Your task to perform on an android device: delete browsing data in the chrome app Image 0: 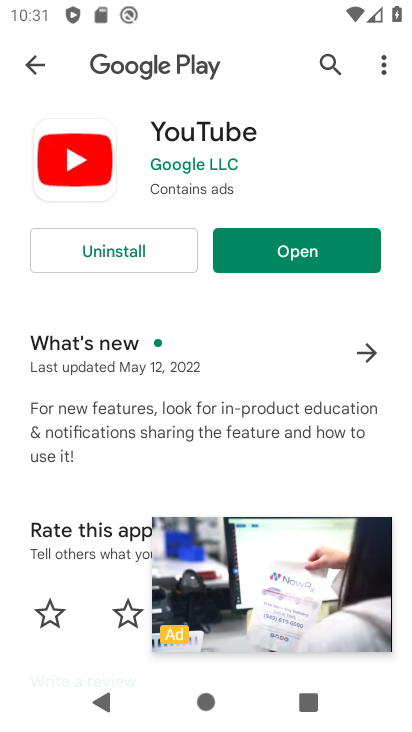
Step 0: press home button
Your task to perform on an android device: delete browsing data in the chrome app Image 1: 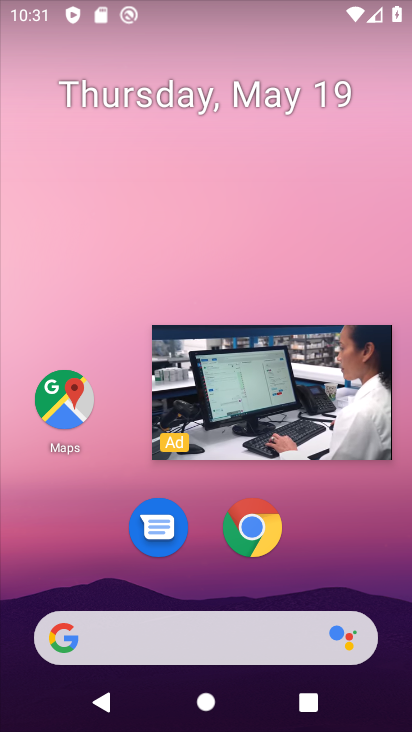
Step 1: click (256, 519)
Your task to perform on an android device: delete browsing data in the chrome app Image 2: 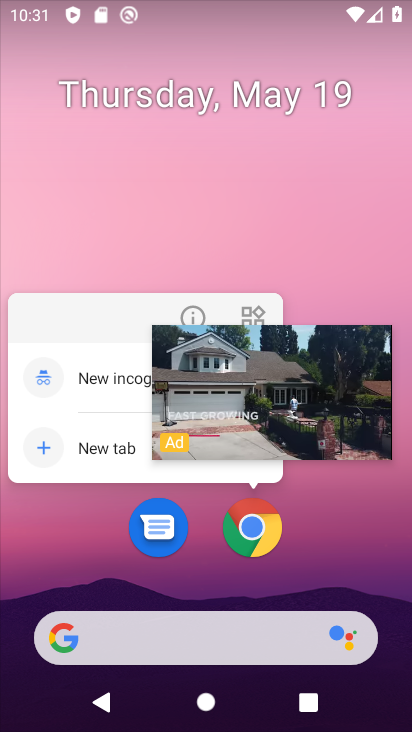
Step 2: click (254, 519)
Your task to perform on an android device: delete browsing data in the chrome app Image 3: 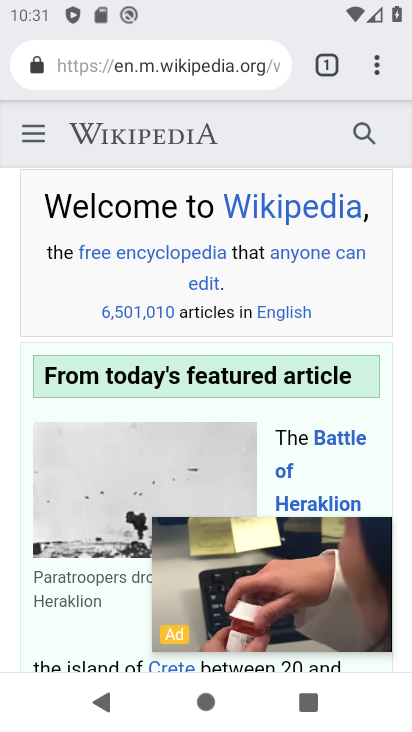
Step 3: click (373, 75)
Your task to perform on an android device: delete browsing data in the chrome app Image 4: 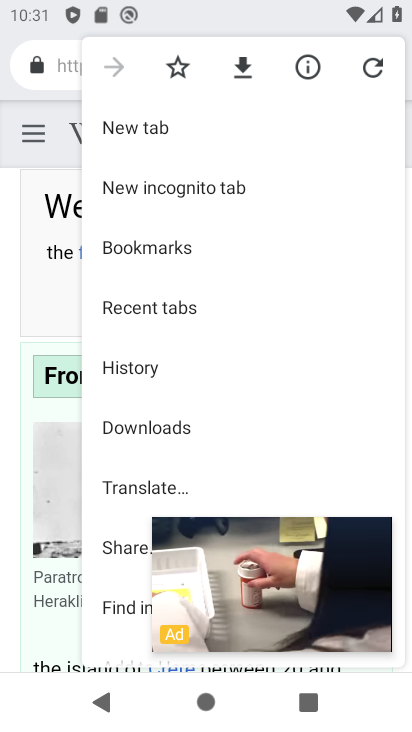
Step 4: click (144, 369)
Your task to perform on an android device: delete browsing data in the chrome app Image 5: 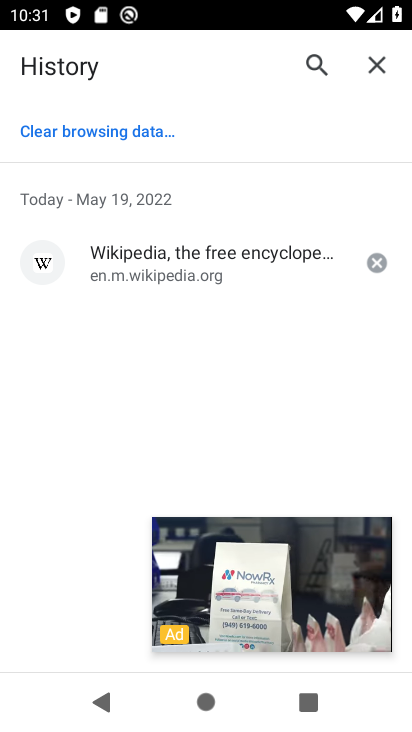
Step 5: click (110, 126)
Your task to perform on an android device: delete browsing data in the chrome app Image 6: 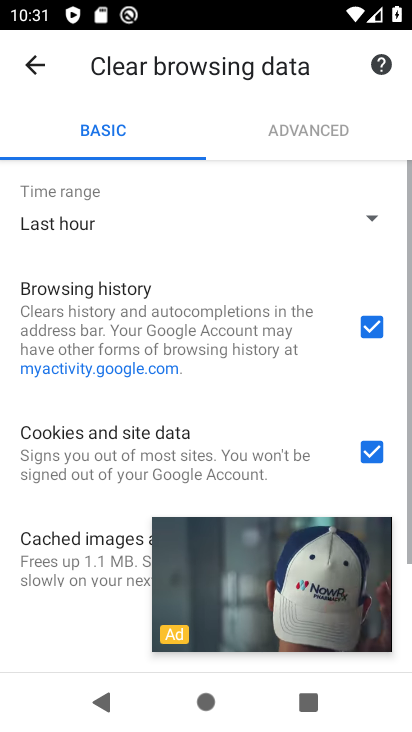
Step 6: drag from (320, 479) to (323, 270)
Your task to perform on an android device: delete browsing data in the chrome app Image 7: 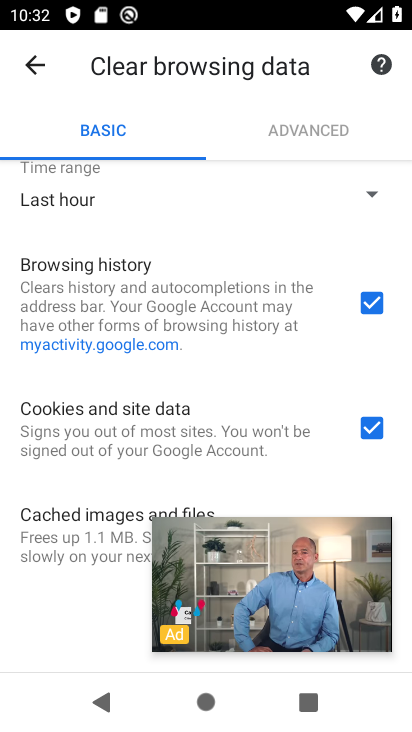
Step 7: click (292, 589)
Your task to perform on an android device: delete browsing data in the chrome app Image 8: 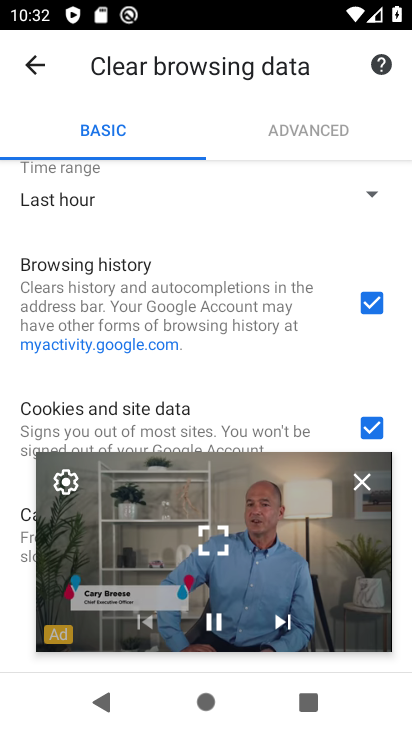
Step 8: click (361, 471)
Your task to perform on an android device: delete browsing data in the chrome app Image 9: 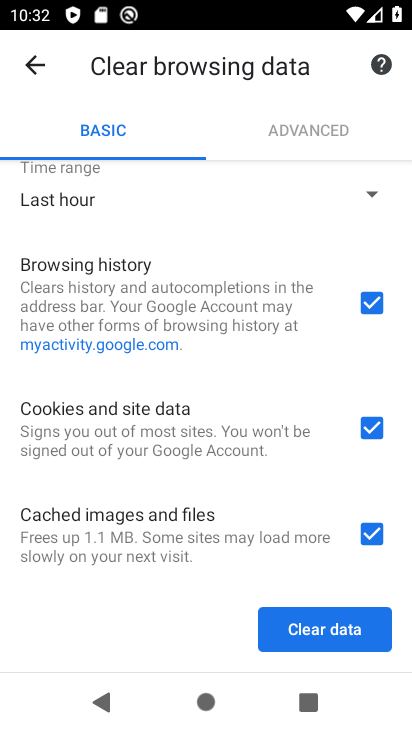
Step 9: click (333, 633)
Your task to perform on an android device: delete browsing data in the chrome app Image 10: 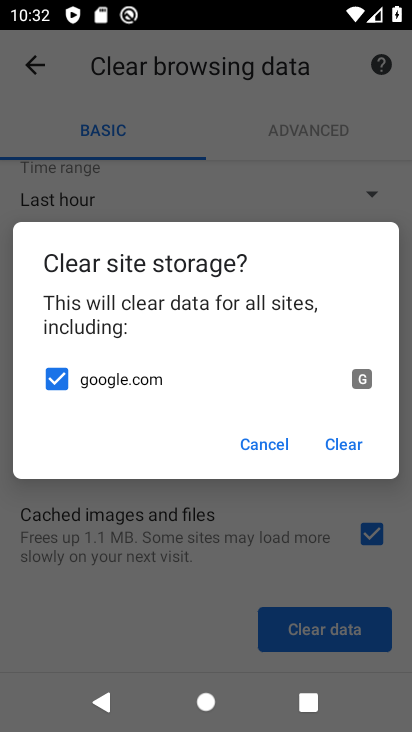
Step 10: click (351, 436)
Your task to perform on an android device: delete browsing data in the chrome app Image 11: 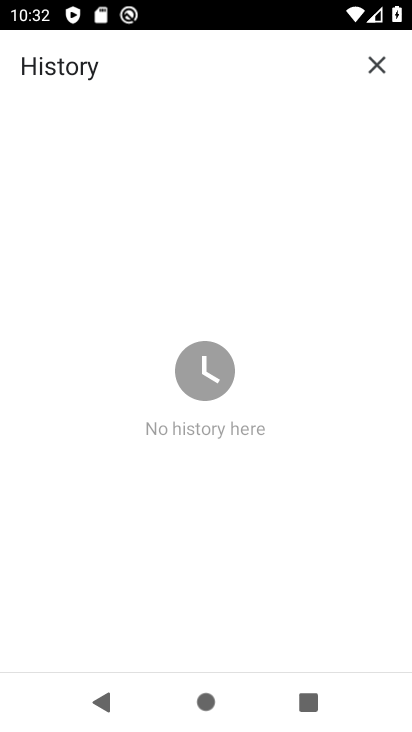
Step 11: task complete